Your task to perform on an android device: turn off sleep mode Image 0: 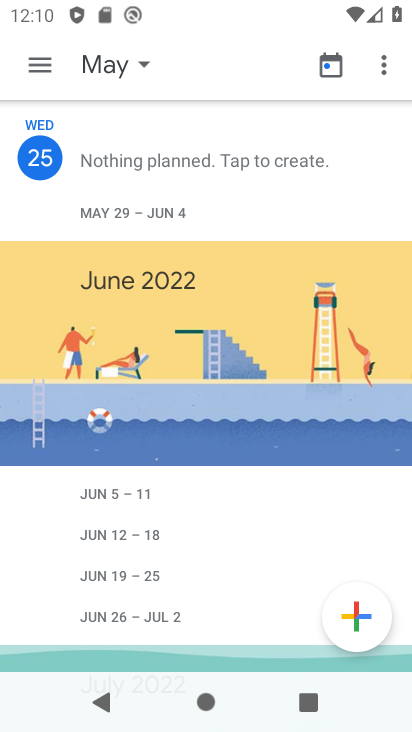
Step 0: press home button
Your task to perform on an android device: turn off sleep mode Image 1: 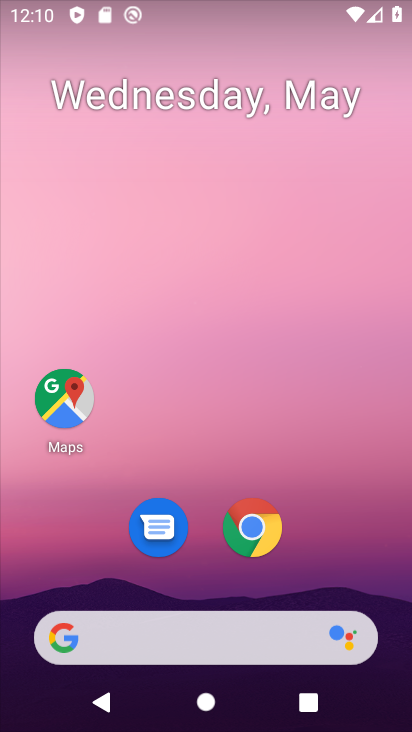
Step 1: drag from (369, 585) to (303, 162)
Your task to perform on an android device: turn off sleep mode Image 2: 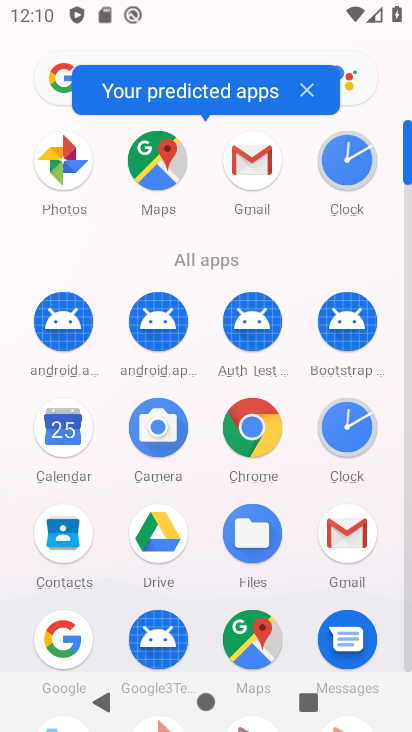
Step 2: click (407, 363)
Your task to perform on an android device: turn off sleep mode Image 3: 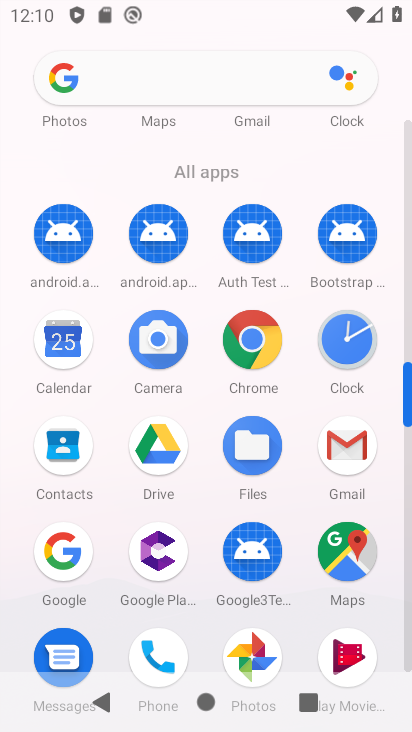
Step 3: click (400, 585)
Your task to perform on an android device: turn off sleep mode Image 4: 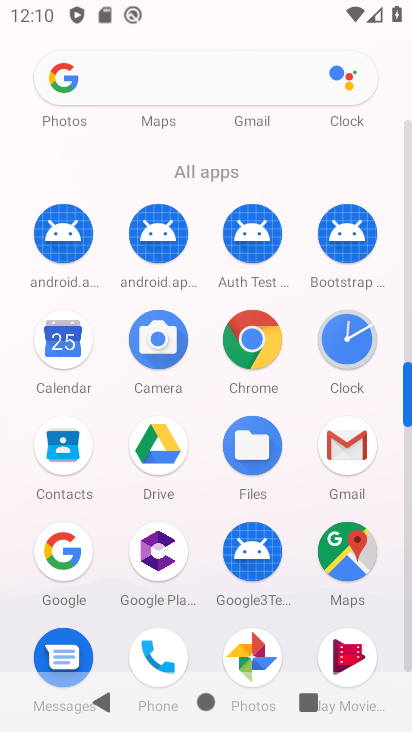
Step 4: click (405, 591)
Your task to perform on an android device: turn off sleep mode Image 5: 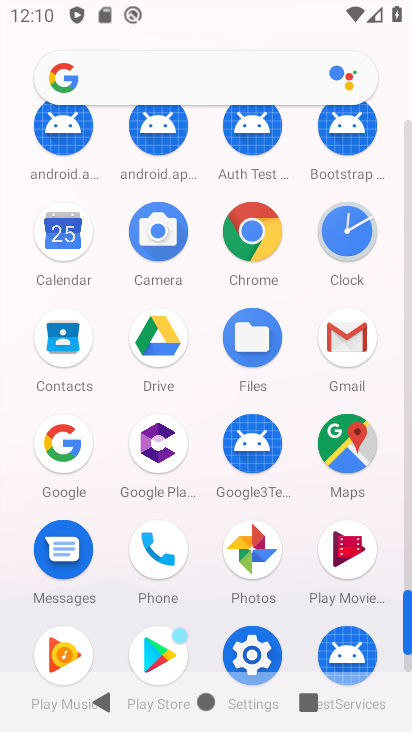
Step 5: click (267, 646)
Your task to perform on an android device: turn off sleep mode Image 6: 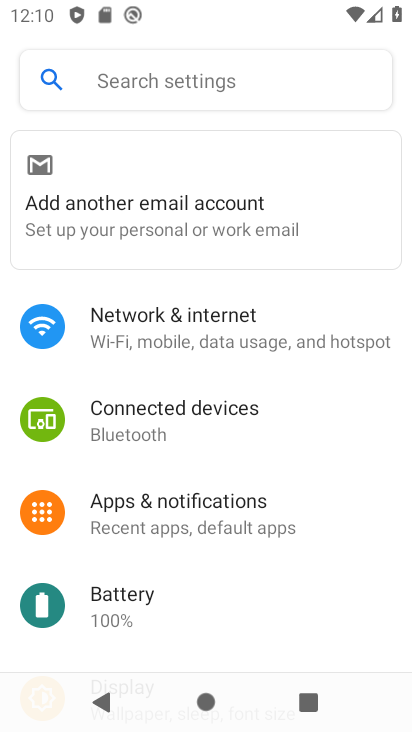
Step 6: drag from (275, 617) to (243, 240)
Your task to perform on an android device: turn off sleep mode Image 7: 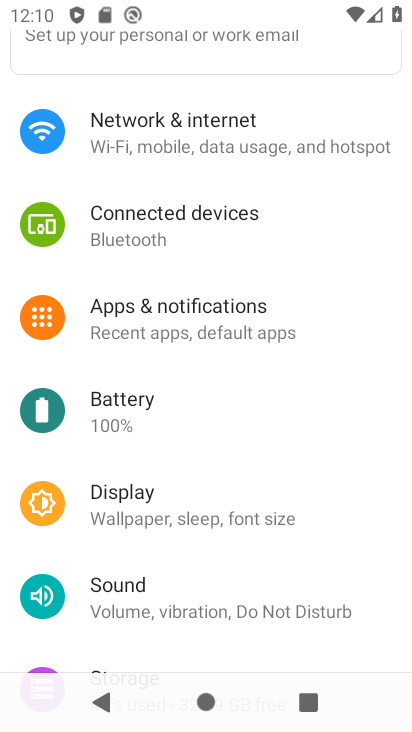
Step 7: drag from (257, 588) to (232, 191)
Your task to perform on an android device: turn off sleep mode Image 8: 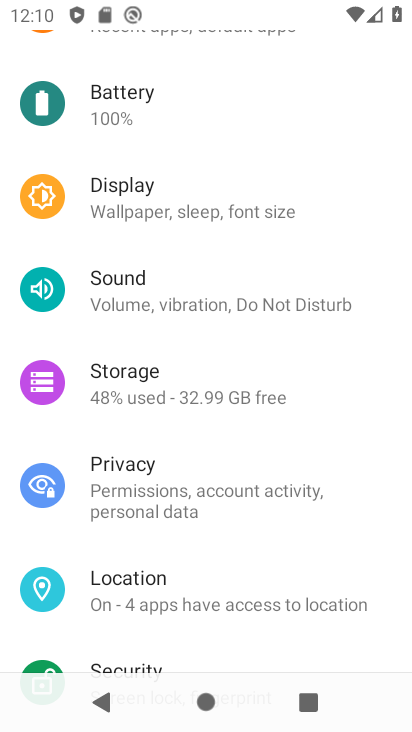
Step 8: click (230, 199)
Your task to perform on an android device: turn off sleep mode Image 9: 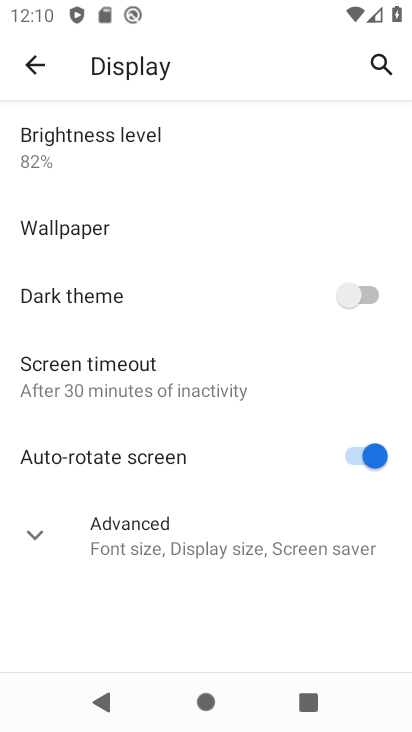
Step 9: click (278, 559)
Your task to perform on an android device: turn off sleep mode Image 10: 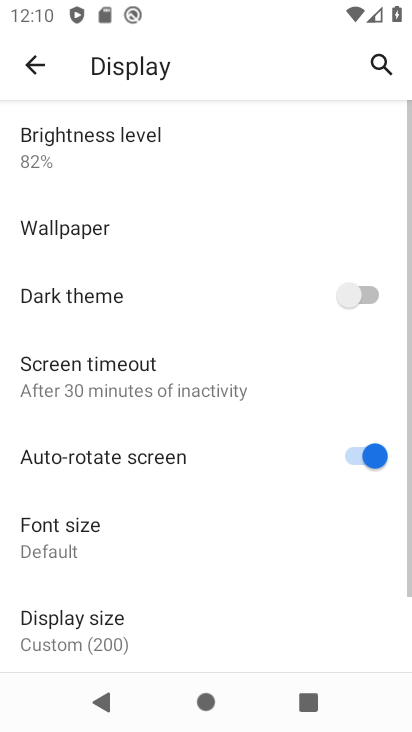
Step 10: task complete